Your task to perform on an android device: change keyboard looks Image 0: 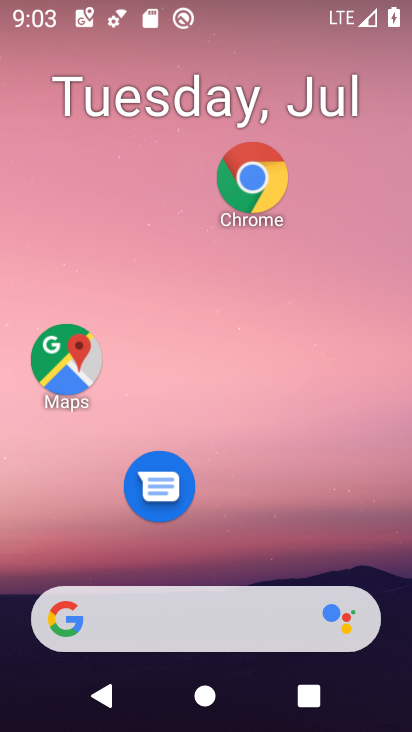
Step 0: drag from (270, 620) to (290, 117)
Your task to perform on an android device: change keyboard looks Image 1: 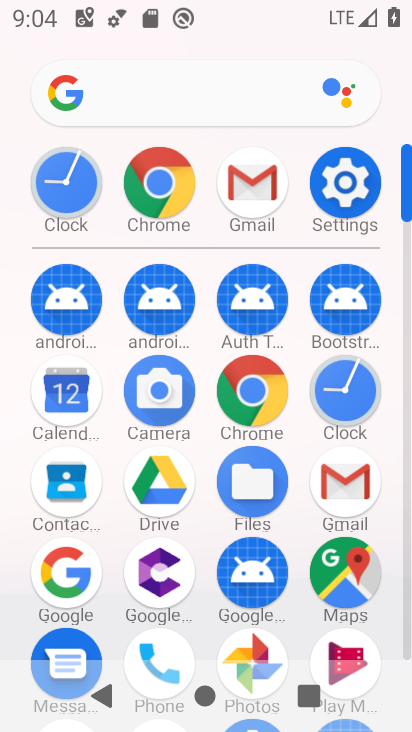
Step 1: click (329, 187)
Your task to perform on an android device: change keyboard looks Image 2: 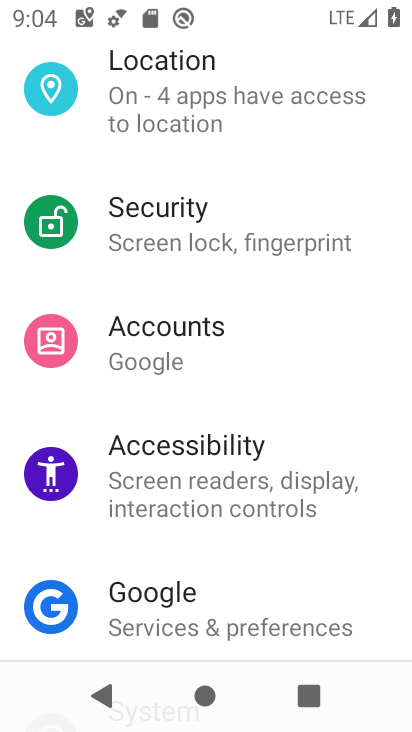
Step 2: drag from (198, 270) to (169, 518)
Your task to perform on an android device: change keyboard looks Image 3: 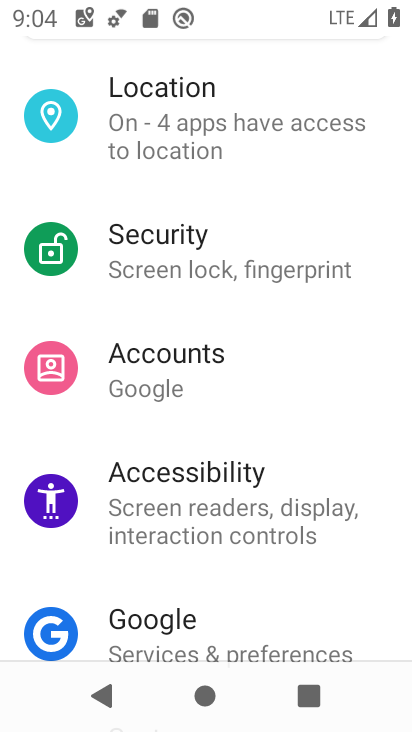
Step 3: drag from (181, 483) to (248, 60)
Your task to perform on an android device: change keyboard looks Image 4: 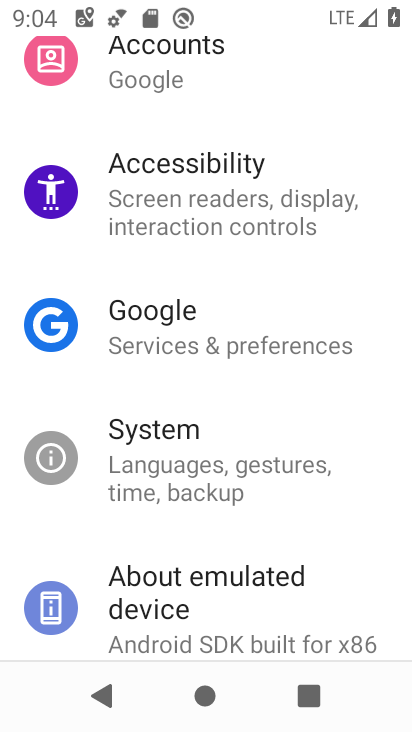
Step 4: drag from (201, 444) to (256, 66)
Your task to perform on an android device: change keyboard looks Image 5: 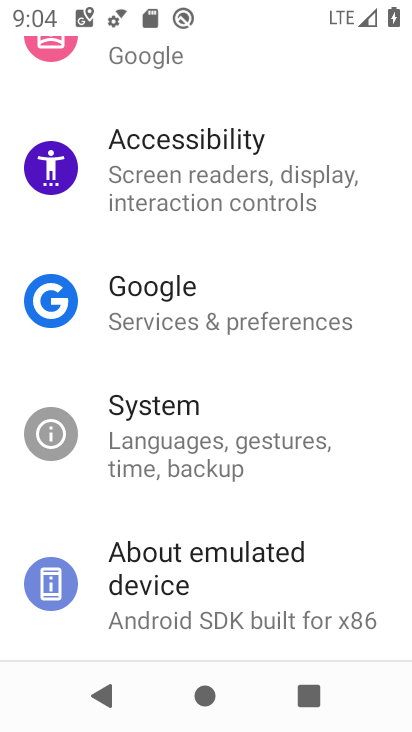
Step 5: click (239, 445)
Your task to perform on an android device: change keyboard looks Image 6: 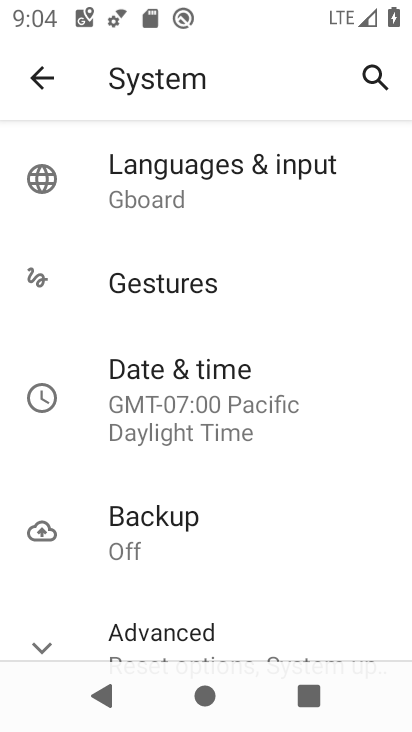
Step 6: click (183, 194)
Your task to perform on an android device: change keyboard looks Image 7: 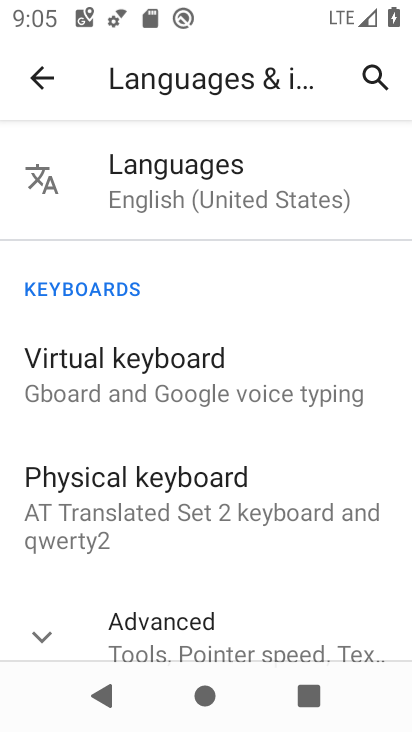
Step 7: click (196, 381)
Your task to perform on an android device: change keyboard looks Image 8: 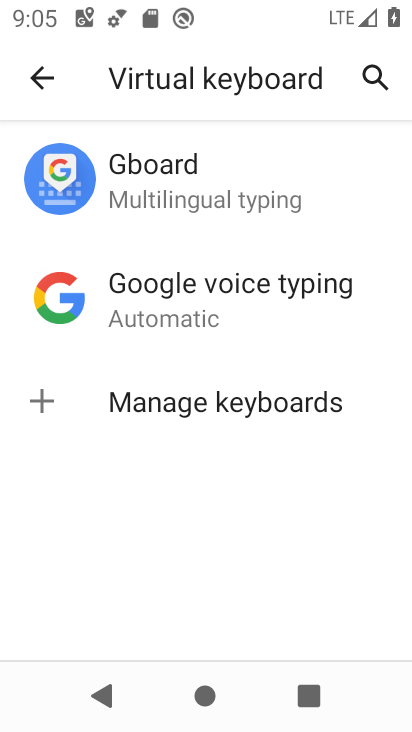
Step 8: click (275, 209)
Your task to perform on an android device: change keyboard looks Image 9: 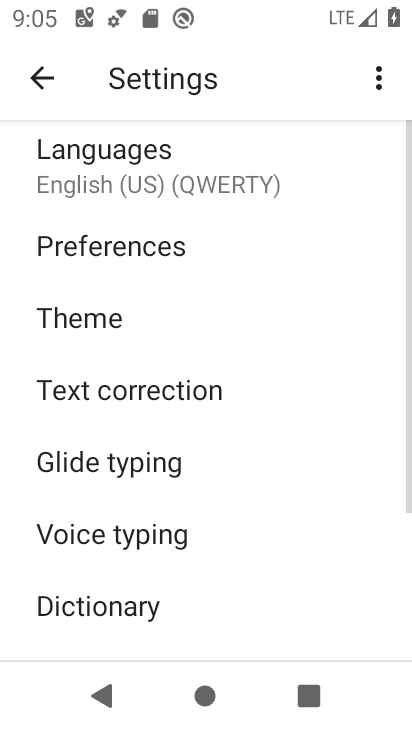
Step 9: click (119, 320)
Your task to perform on an android device: change keyboard looks Image 10: 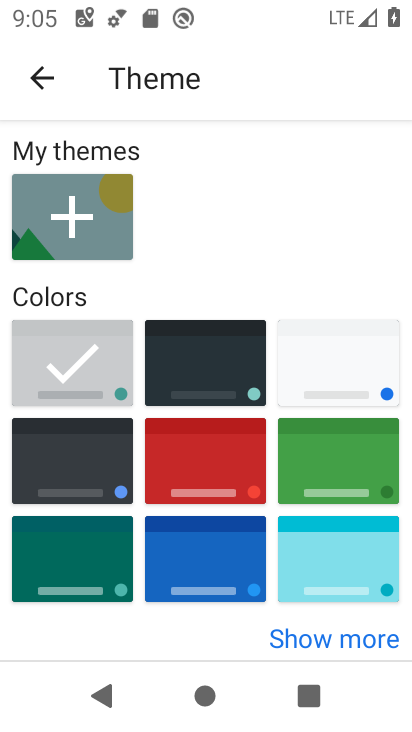
Step 10: click (325, 356)
Your task to perform on an android device: change keyboard looks Image 11: 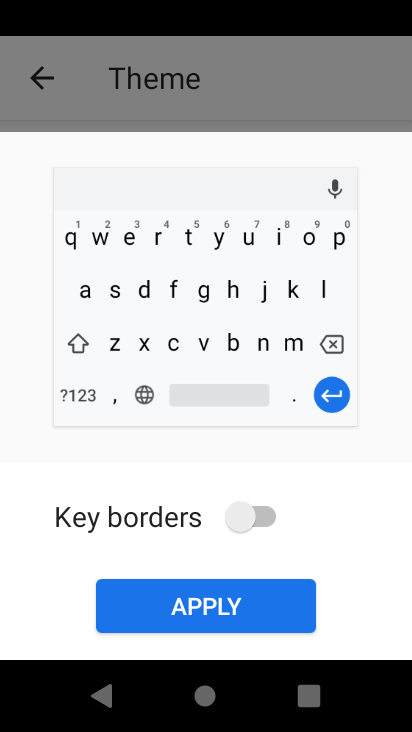
Step 11: click (243, 613)
Your task to perform on an android device: change keyboard looks Image 12: 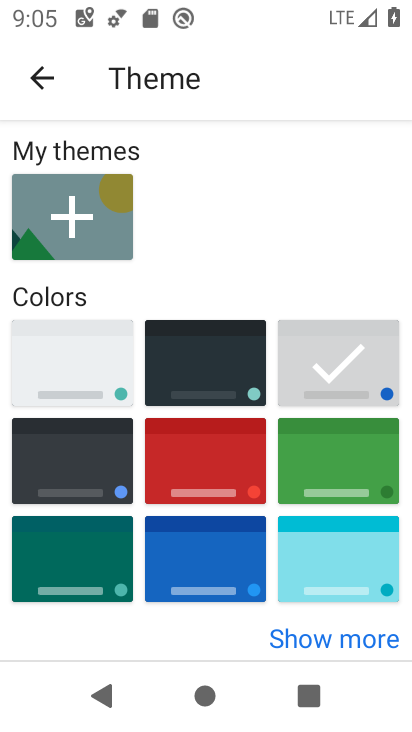
Step 12: task complete